Your task to perform on an android device: Turn on the flashlight Image 0: 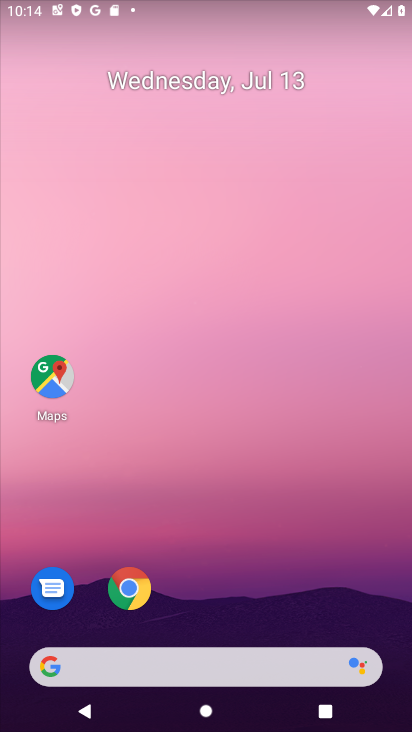
Step 0: drag from (217, 608) to (251, 85)
Your task to perform on an android device: Turn on the flashlight Image 1: 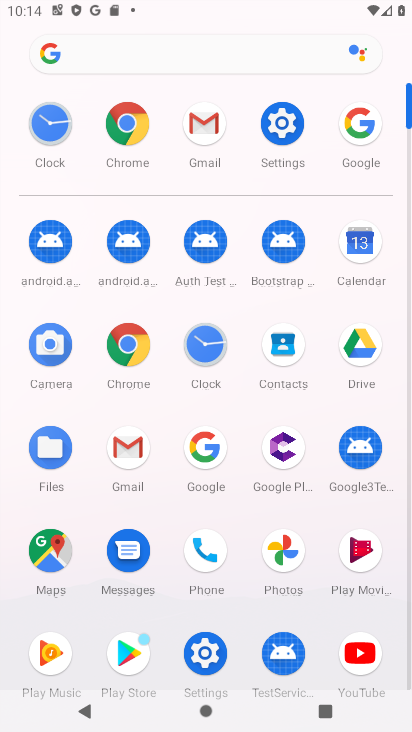
Step 1: click (285, 123)
Your task to perform on an android device: Turn on the flashlight Image 2: 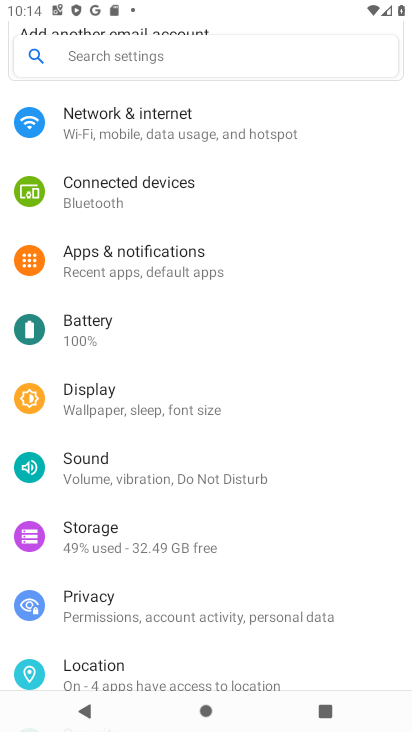
Step 2: click (197, 50)
Your task to perform on an android device: Turn on the flashlight Image 3: 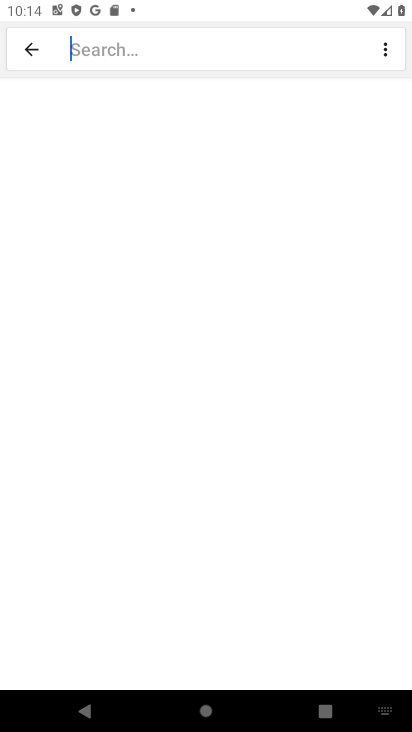
Step 3: type "flashlight"
Your task to perform on an android device: Turn on the flashlight Image 4: 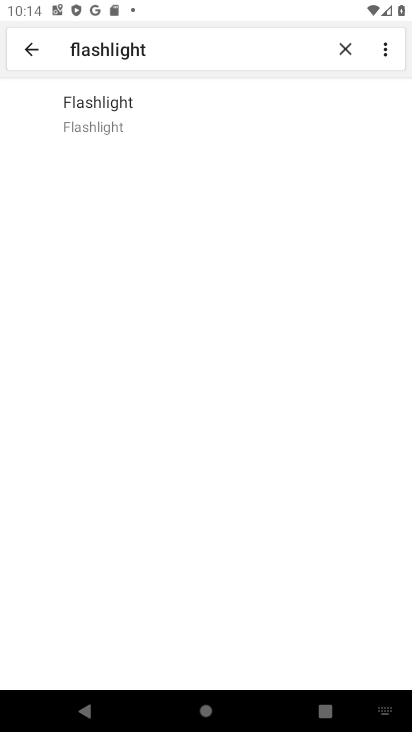
Step 4: task complete